Your task to perform on an android device: What's on my calendar today? Image 0: 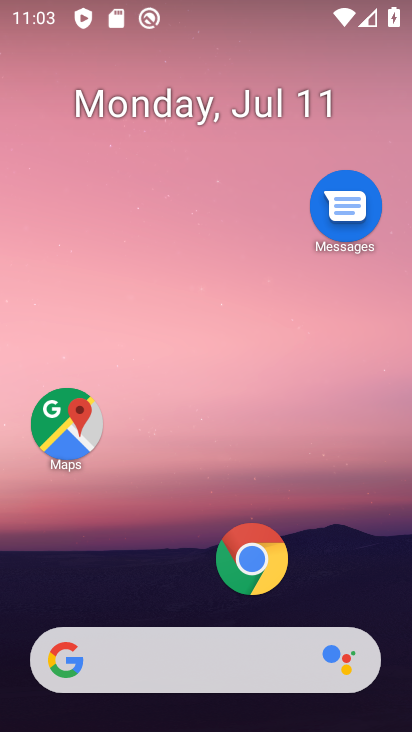
Step 0: drag from (350, 567) to (368, 146)
Your task to perform on an android device: What's on my calendar today? Image 1: 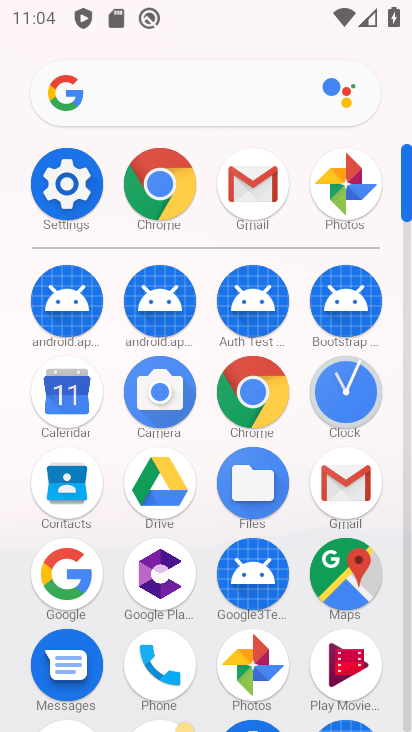
Step 1: click (71, 405)
Your task to perform on an android device: What's on my calendar today? Image 2: 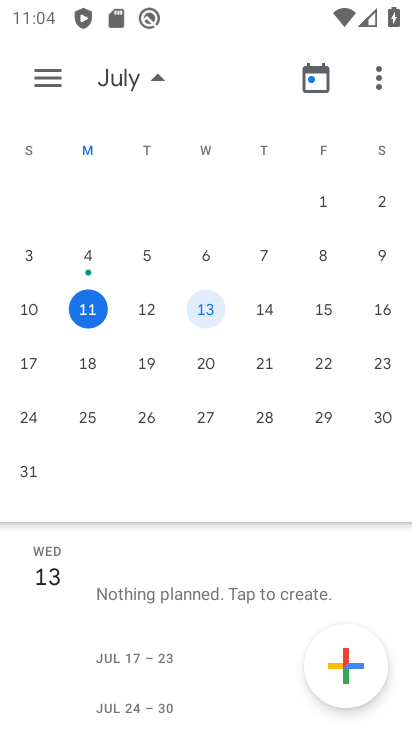
Step 2: click (148, 318)
Your task to perform on an android device: What's on my calendar today? Image 3: 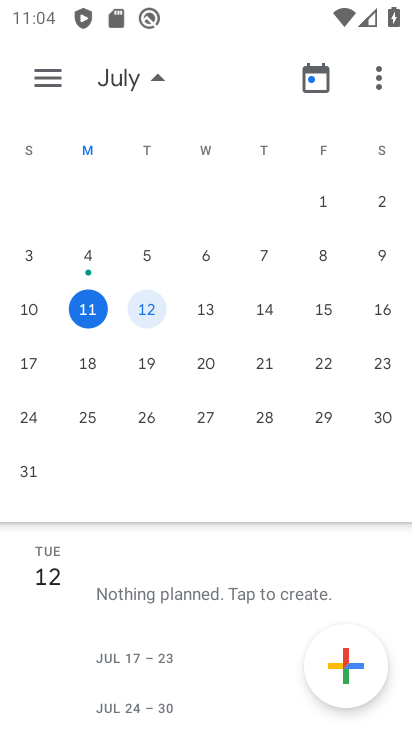
Step 3: task complete